Your task to perform on an android device: turn on translation in the chrome app Image 0: 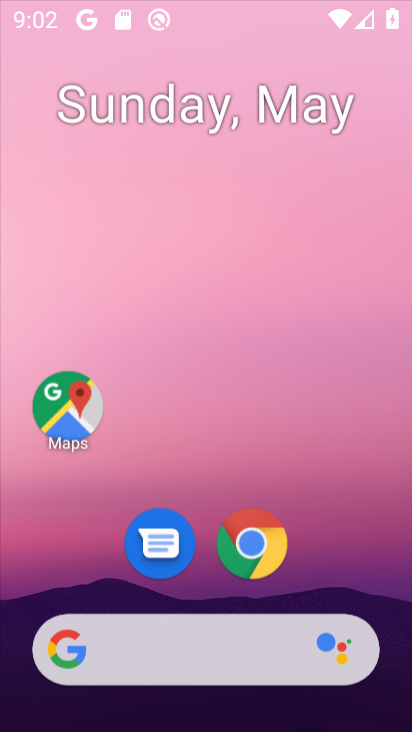
Step 0: click (257, 159)
Your task to perform on an android device: turn on translation in the chrome app Image 1: 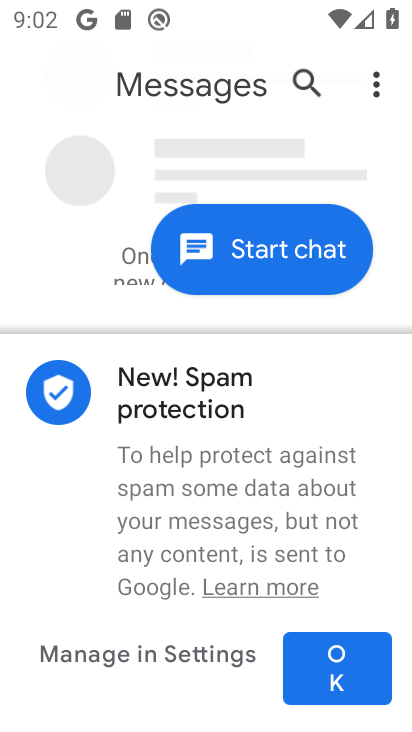
Step 1: press home button
Your task to perform on an android device: turn on translation in the chrome app Image 2: 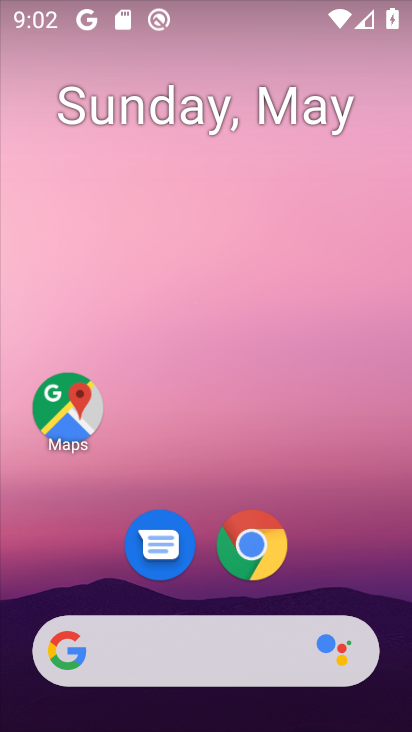
Step 2: click (245, 548)
Your task to perform on an android device: turn on translation in the chrome app Image 3: 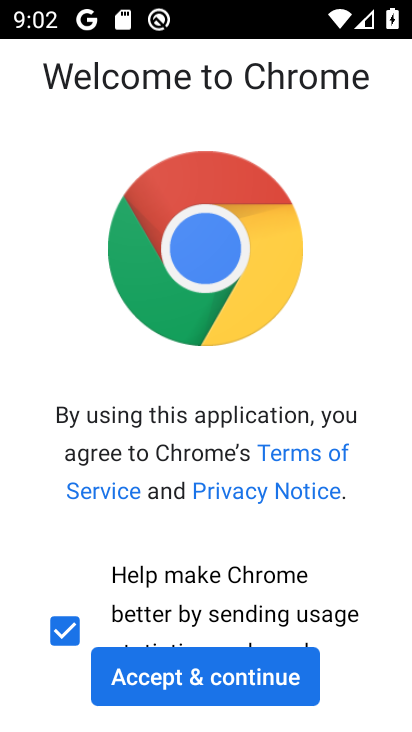
Step 3: click (92, 676)
Your task to perform on an android device: turn on translation in the chrome app Image 4: 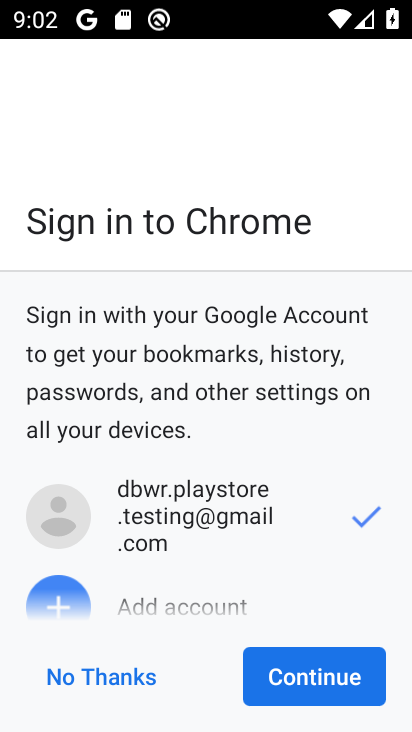
Step 4: click (303, 684)
Your task to perform on an android device: turn on translation in the chrome app Image 5: 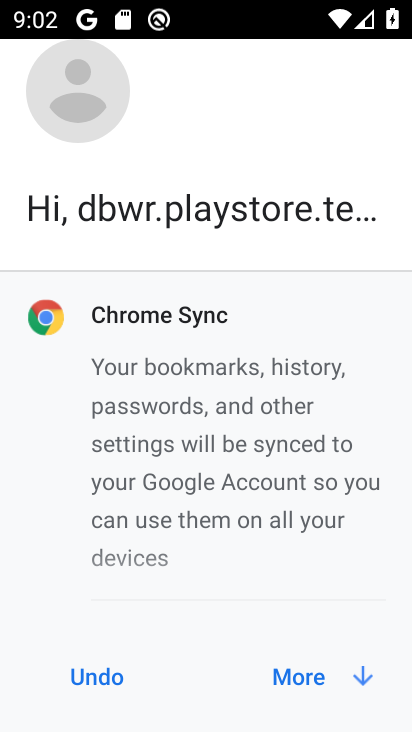
Step 5: click (298, 680)
Your task to perform on an android device: turn on translation in the chrome app Image 6: 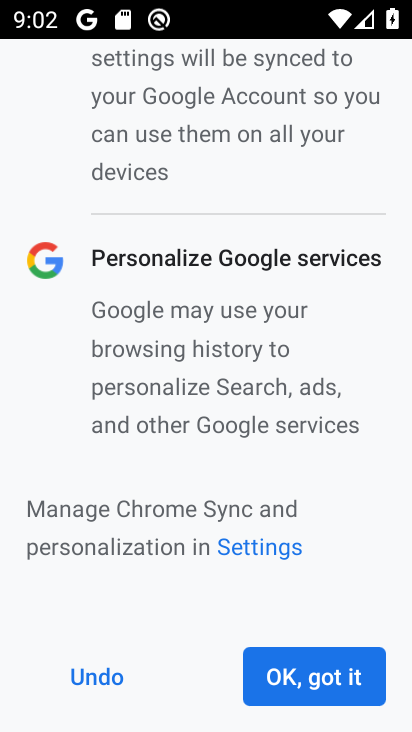
Step 6: click (298, 680)
Your task to perform on an android device: turn on translation in the chrome app Image 7: 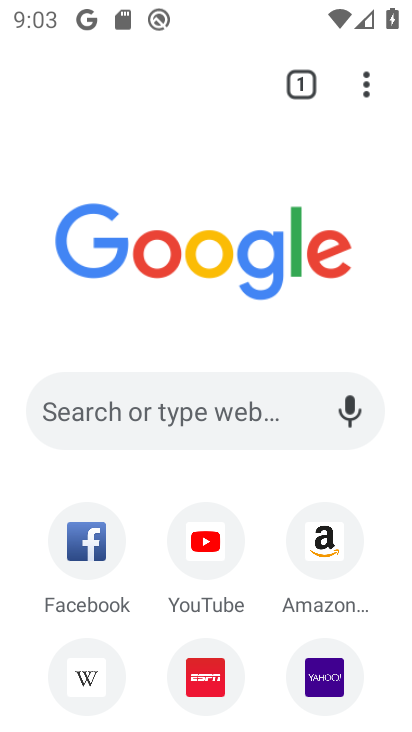
Step 7: click (359, 84)
Your task to perform on an android device: turn on translation in the chrome app Image 8: 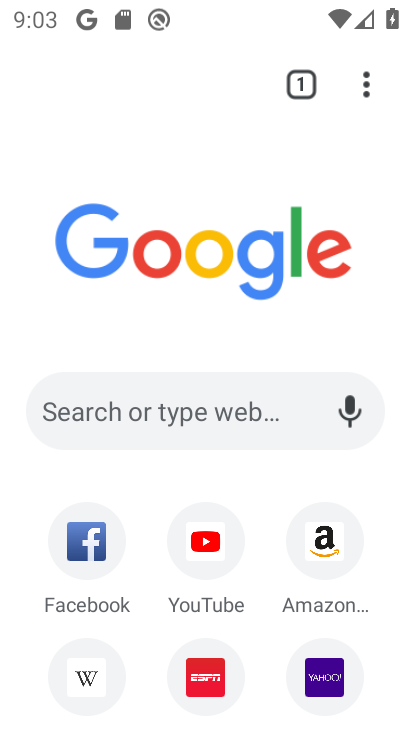
Step 8: click (368, 87)
Your task to perform on an android device: turn on translation in the chrome app Image 9: 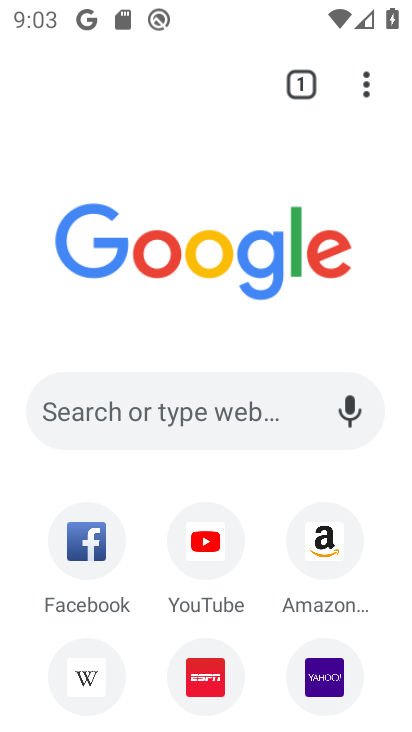
Step 9: click (368, 89)
Your task to perform on an android device: turn on translation in the chrome app Image 10: 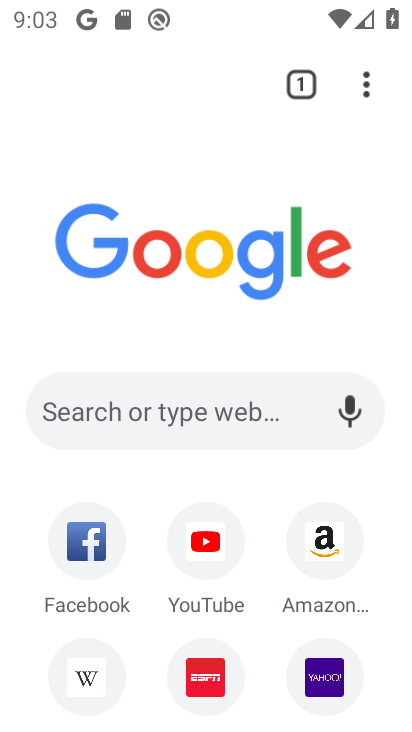
Step 10: click (368, 89)
Your task to perform on an android device: turn on translation in the chrome app Image 11: 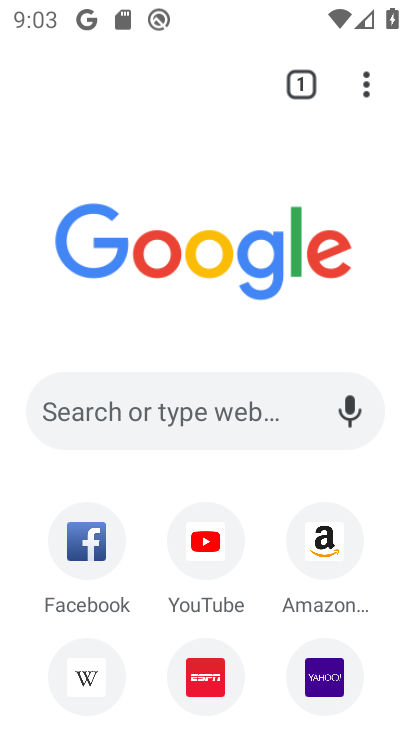
Step 11: click (374, 76)
Your task to perform on an android device: turn on translation in the chrome app Image 12: 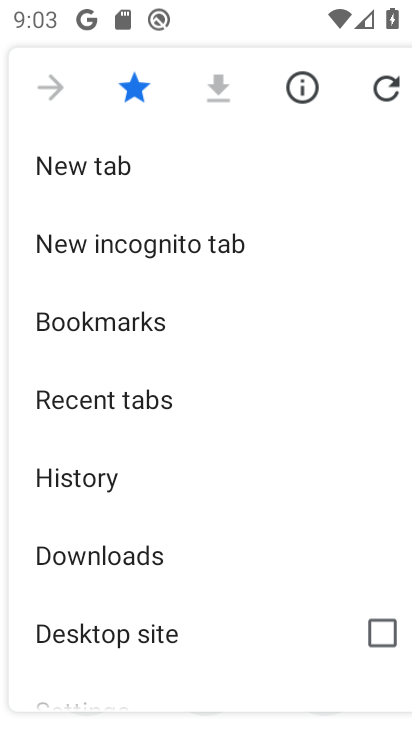
Step 12: drag from (199, 644) to (240, 149)
Your task to perform on an android device: turn on translation in the chrome app Image 13: 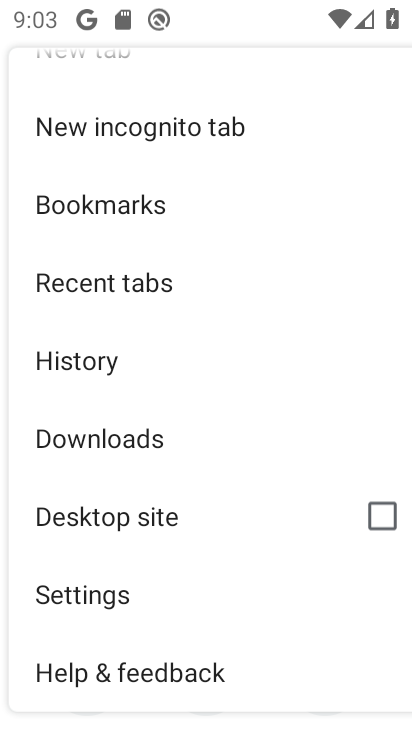
Step 13: click (101, 591)
Your task to perform on an android device: turn on translation in the chrome app Image 14: 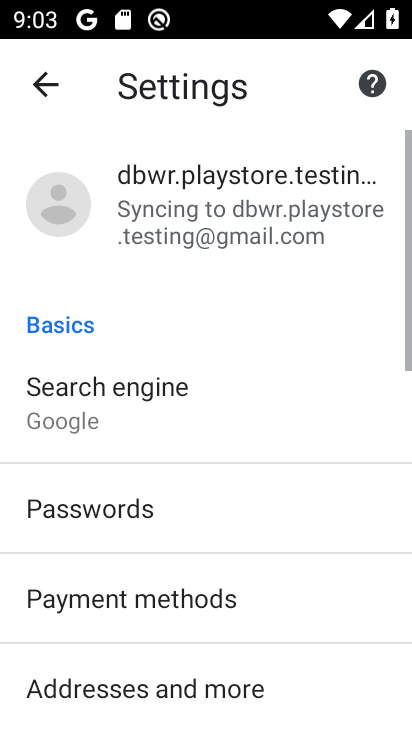
Step 14: drag from (133, 678) to (192, 193)
Your task to perform on an android device: turn on translation in the chrome app Image 15: 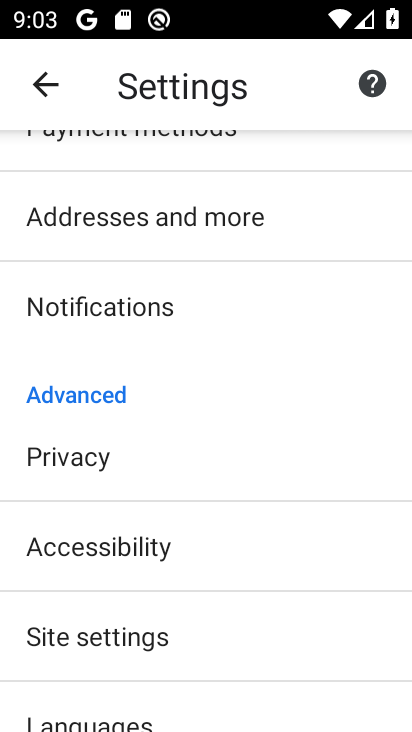
Step 15: drag from (141, 722) to (162, 361)
Your task to perform on an android device: turn on translation in the chrome app Image 16: 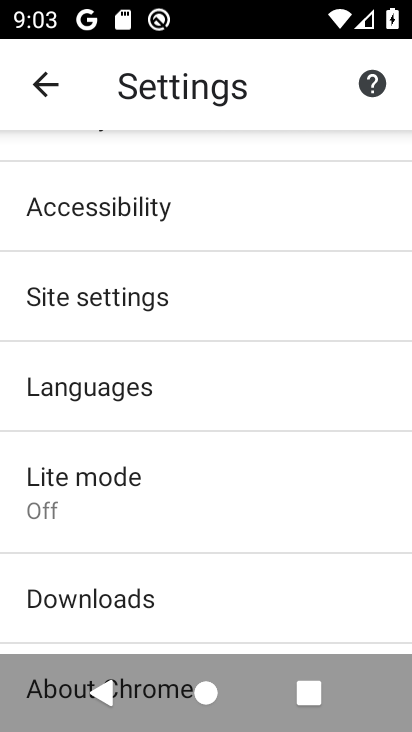
Step 16: drag from (106, 616) to (141, 332)
Your task to perform on an android device: turn on translation in the chrome app Image 17: 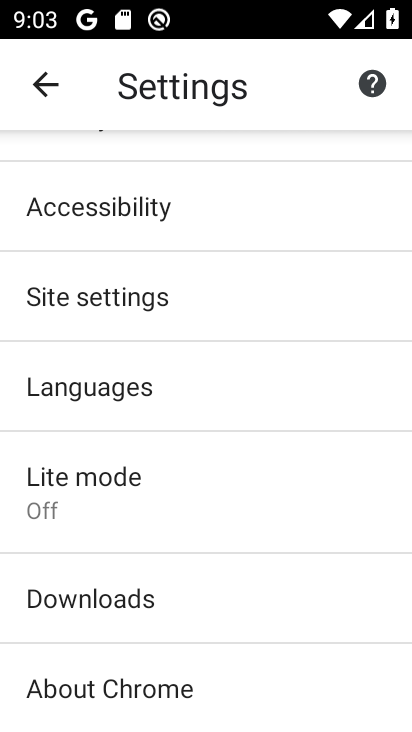
Step 17: click (100, 393)
Your task to perform on an android device: turn on translation in the chrome app Image 18: 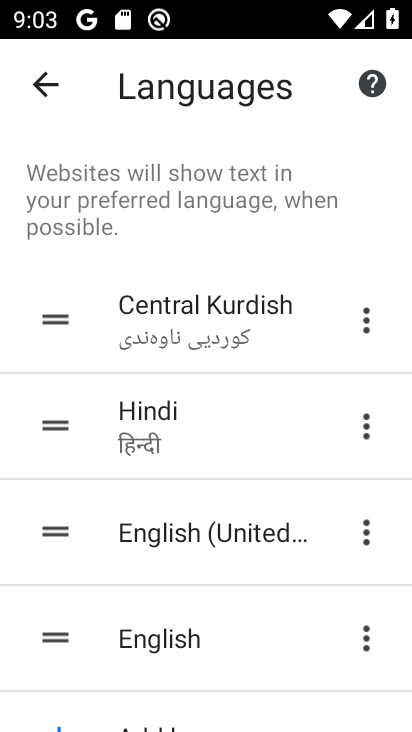
Step 18: drag from (148, 682) to (185, 366)
Your task to perform on an android device: turn on translation in the chrome app Image 19: 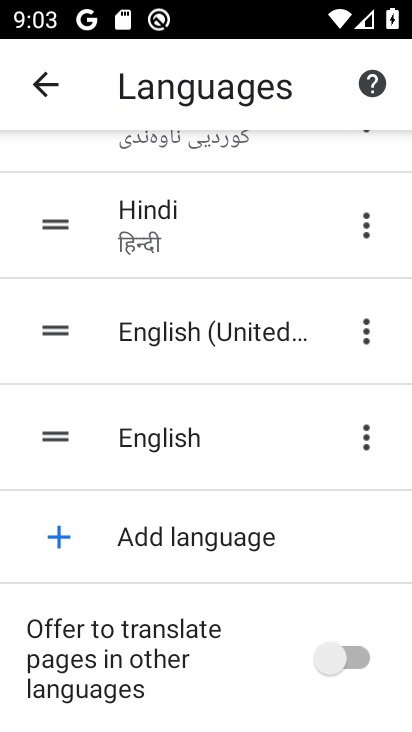
Step 19: click (355, 652)
Your task to perform on an android device: turn on translation in the chrome app Image 20: 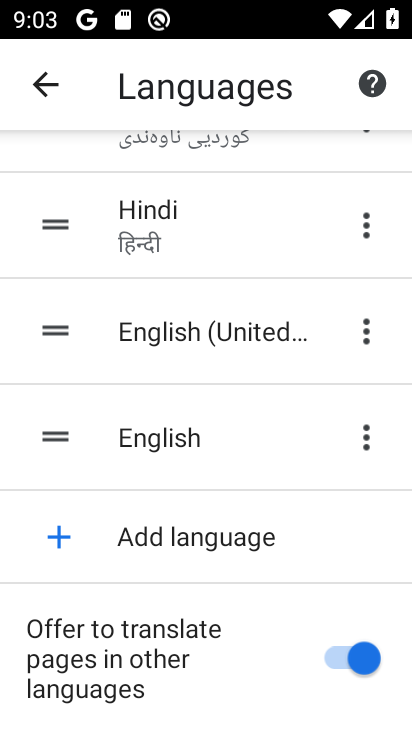
Step 20: task complete